Your task to perform on an android device: change the clock style Image 0: 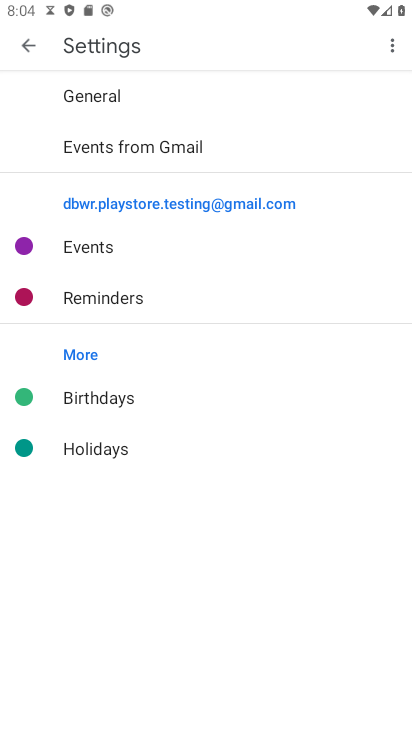
Step 0: press home button
Your task to perform on an android device: change the clock style Image 1: 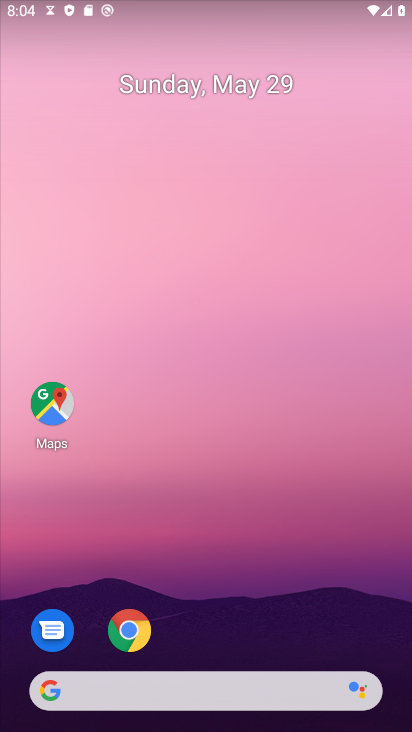
Step 1: drag from (293, 634) to (305, 190)
Your task to perform on an android device: change the clock style Image 2: 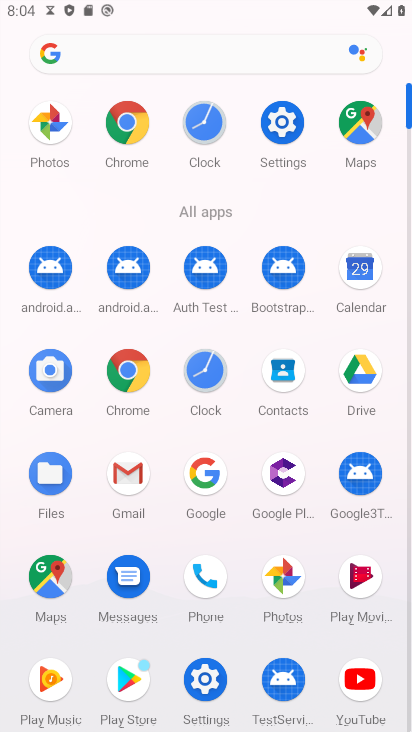
Step 2: click (215, 118)
Your task to perform on an android device: change the clock style Image 3: 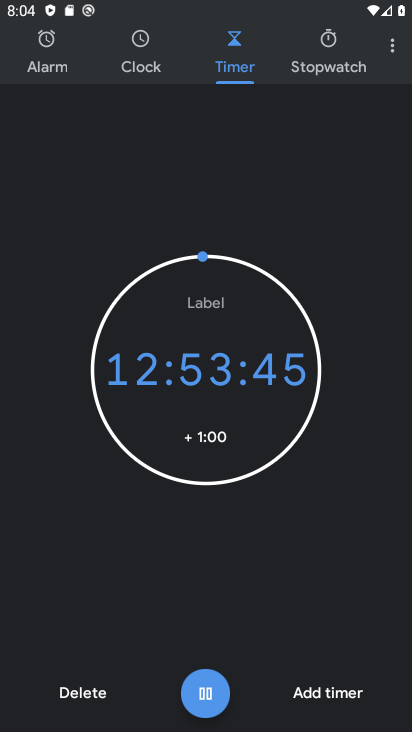
Step 3: click (399, 50)
Your task to perform on an android device: change the clock style Image 4: 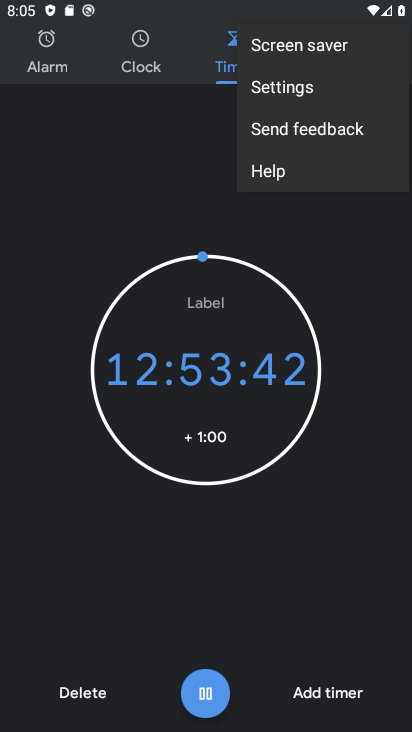
Step 4: click (283, 91)
Your task to perform on an android device: change the clock style Image 5: 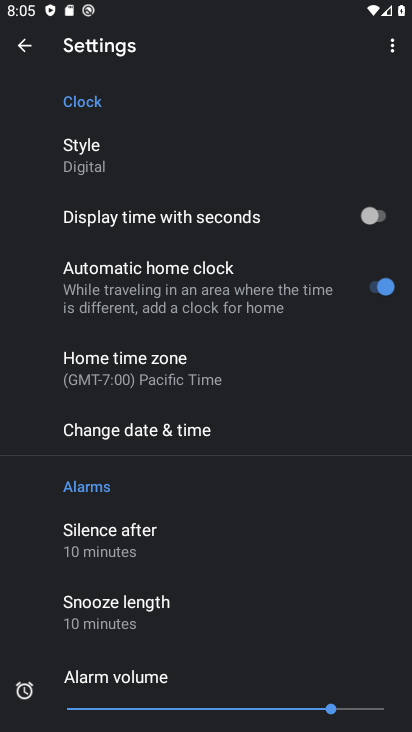
Step 5: click (128, 160)
Your task to perform on an android device: change the clock style Image 6: 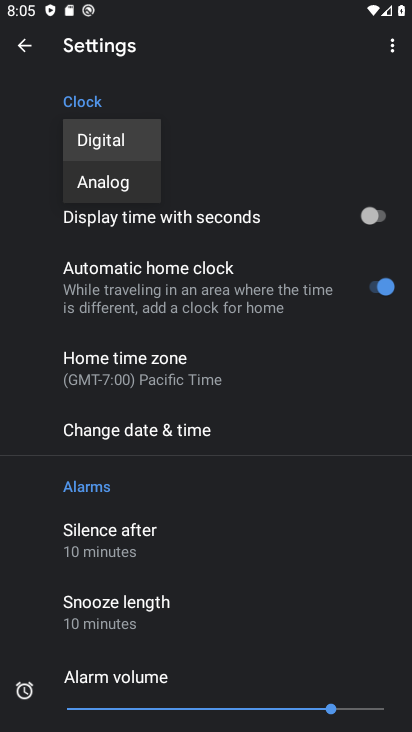
Step 6: click (117, 184)
Your task to perform on an android device: change the clock style Image 7: 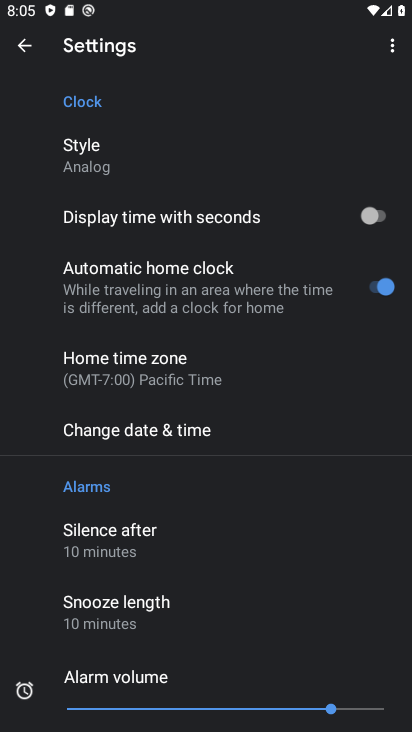
Step 7: task complete